Your task to perform on an android device: Search for flights from Zurich to Buenos aires Image 0: 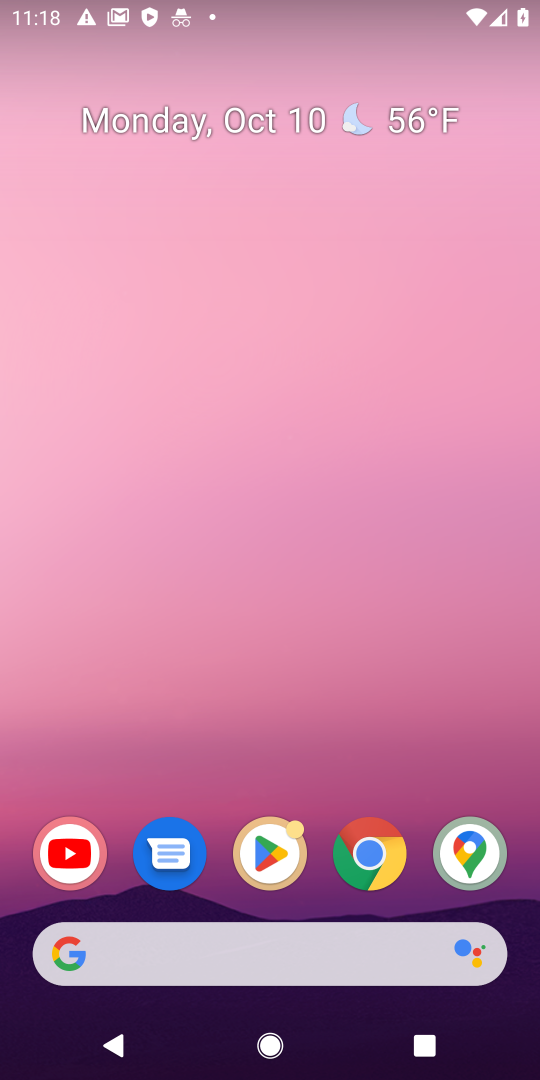
Step 0: click (135, 952)
Your task to perform on an android device: Search for flights from Zurich to Buenos aires Image 1: 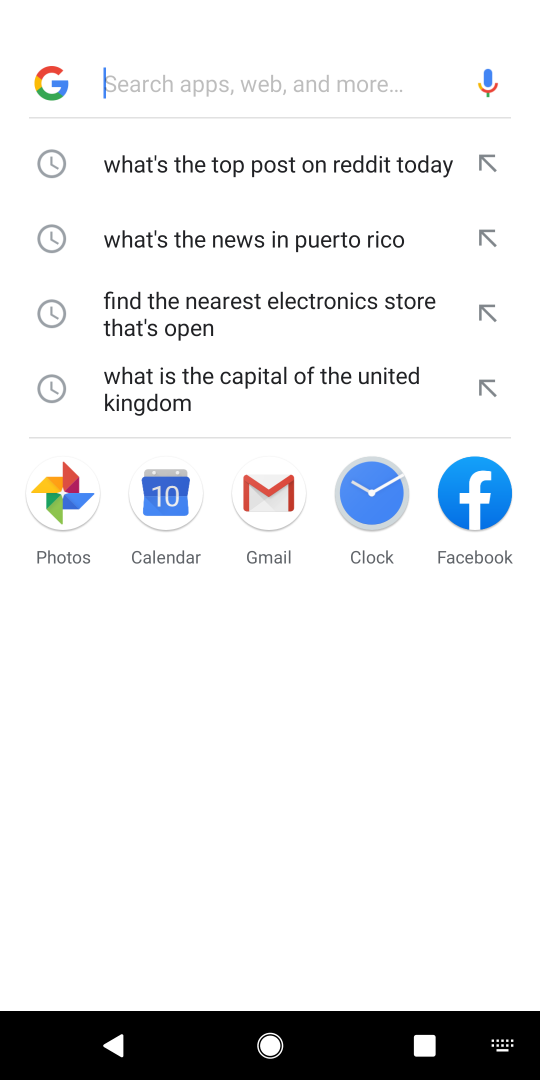
Step 1: type "flights from Zurich to Buenos aires"
Your task to perform on an android device: Search for flights from Zurich to Buenos aires Image 2: 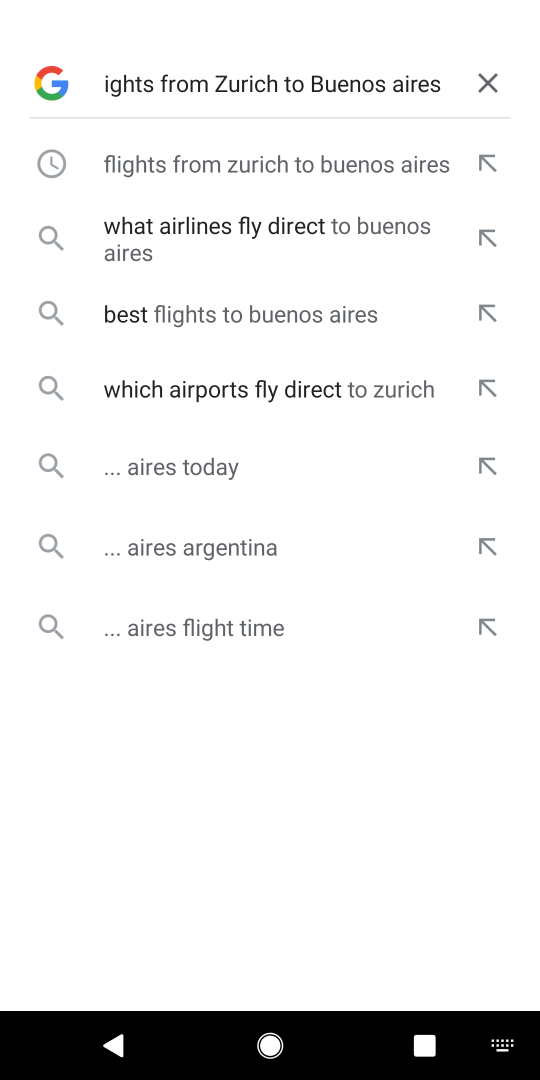
Step 2: press enter
Your task to perform on an android device: Search for flights from Zurich to Buenos aires Image 3: 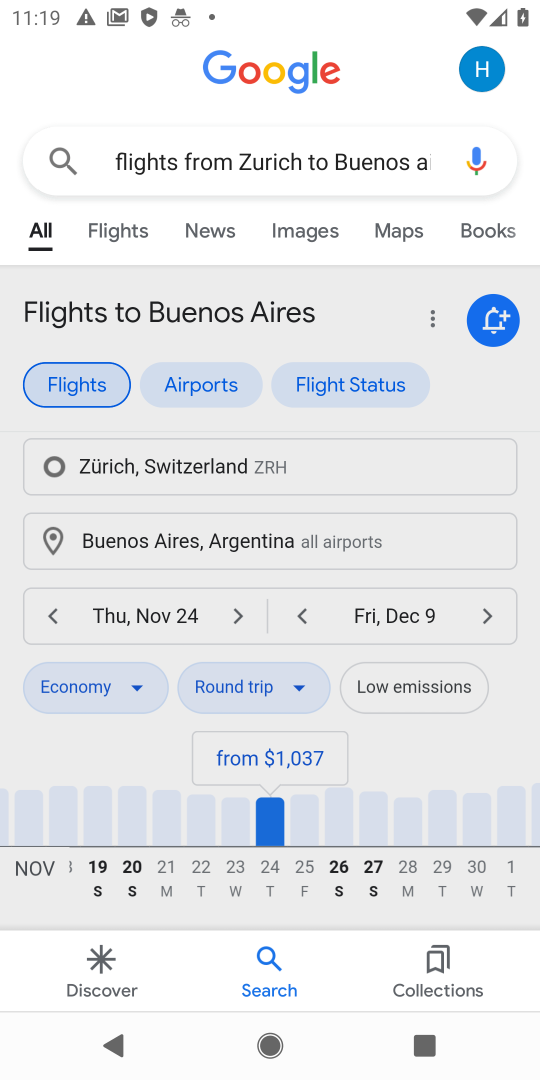
Step 3: drag from (358, 849) to (347, 530)
Your task to perform on an android device: Search for flights from Zurich to Buenos aires Image 4: 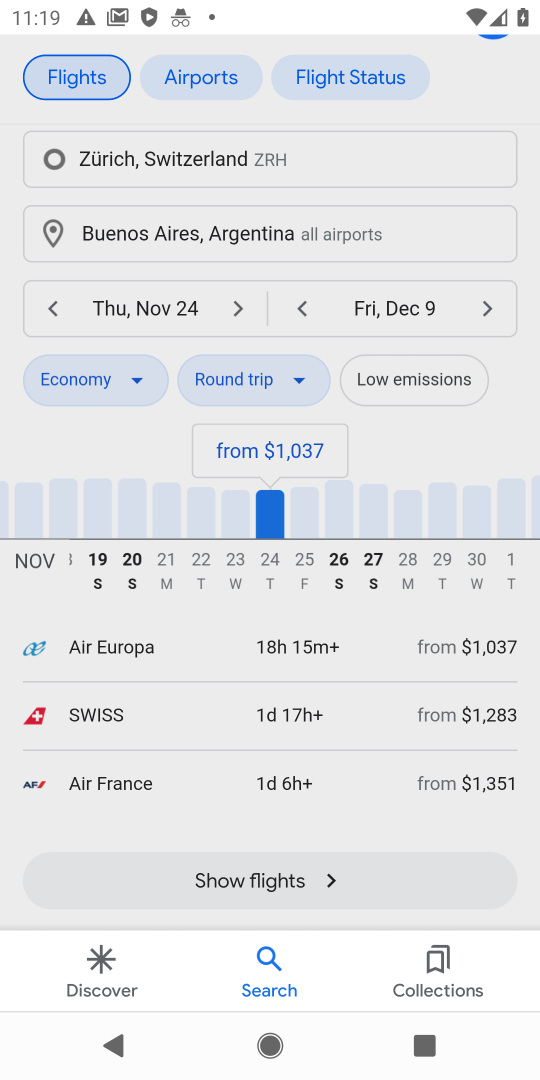
Step 4: click (237, 886)
Your task to perform on an android device: Search for flights from Zurich to Buenos aires Image 5: 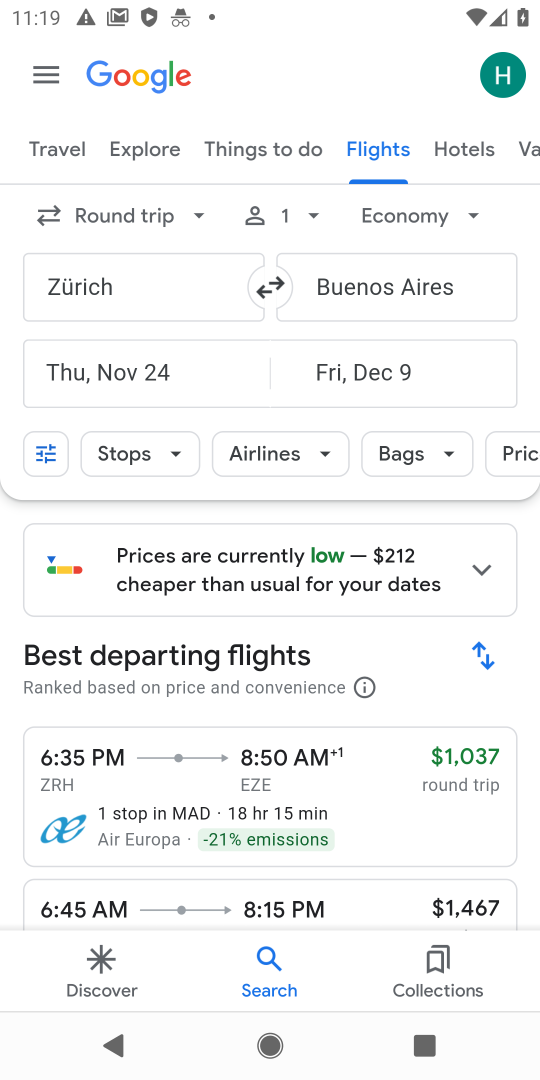
Step 5: task complete